Your task to perform on an android device: change notification settings in the gmail app Image 0: 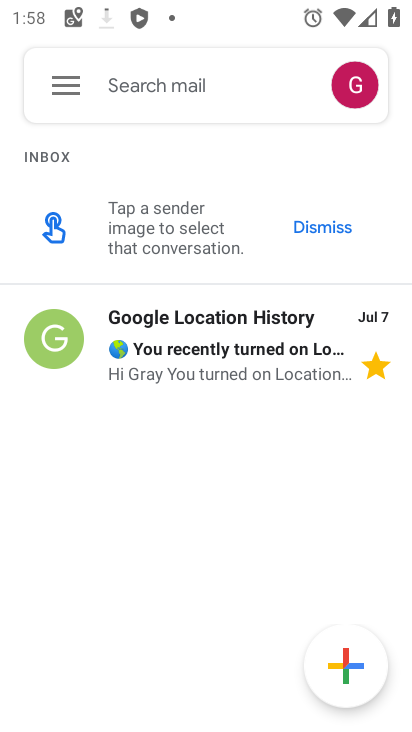
Step 0: press home button
Your task to perform on an android device: change notification settings in the gmail app Image 1: 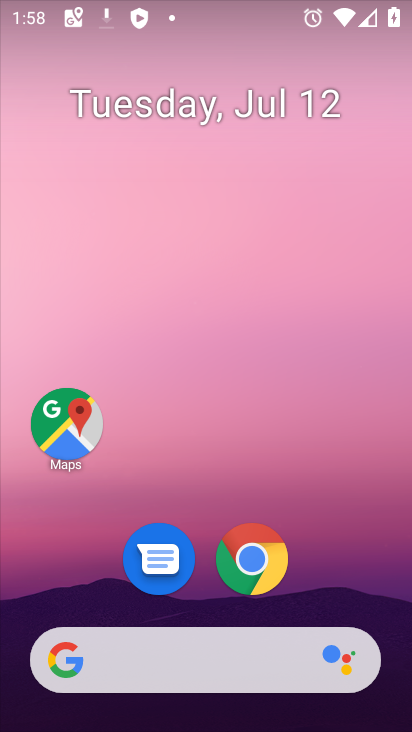
Step 1: drag from (349, 597) to (328, 177)
Your task to perform on an android device: change notification settings in the gmail app Image 2: 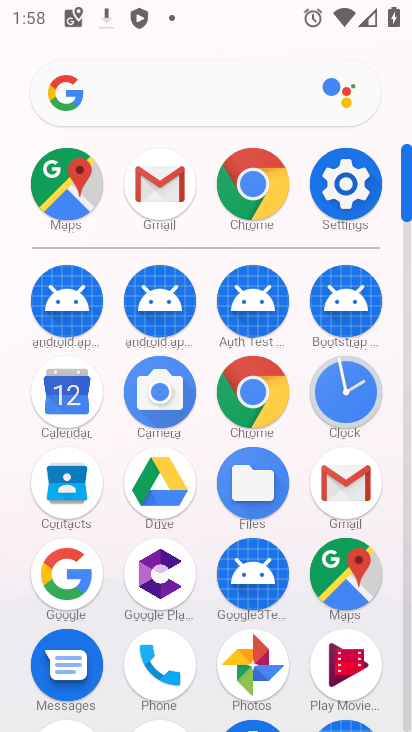
Step 2: click (345, 476)
Your task to perform on an android device: change notification settings in the gmail app Image 3: 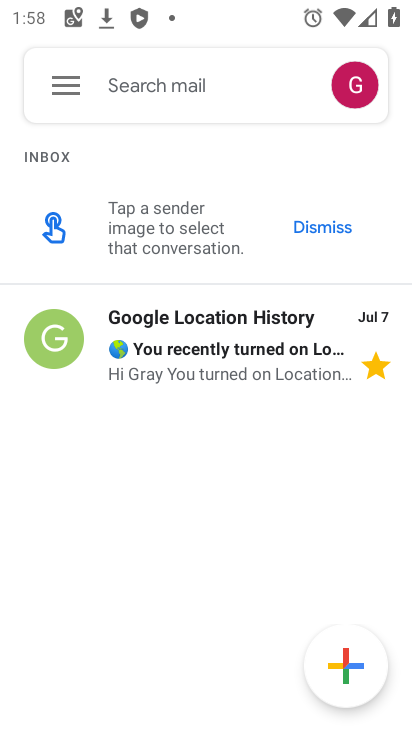
Step 3: click (69, 87)
Your task to perform on an android device: change notification settings in the gmail app Image 4: 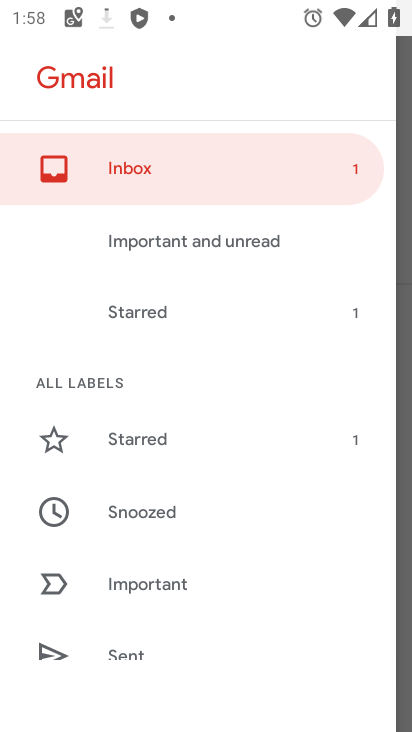
Step 4: drag from (255, 401) to (290, 344)
Your task to perform on an android device: change notification settings in the gmail app Image 5: 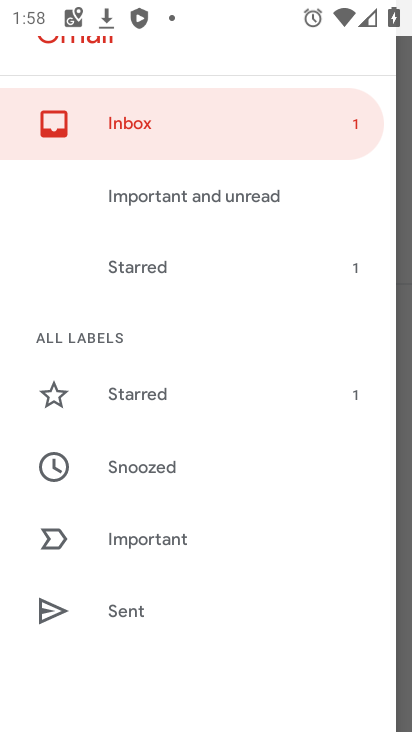
Step 5: drag from (268, 455) to (298, 334)
Your task to perform on an android device: change notification settings in the gmail app Image 6: 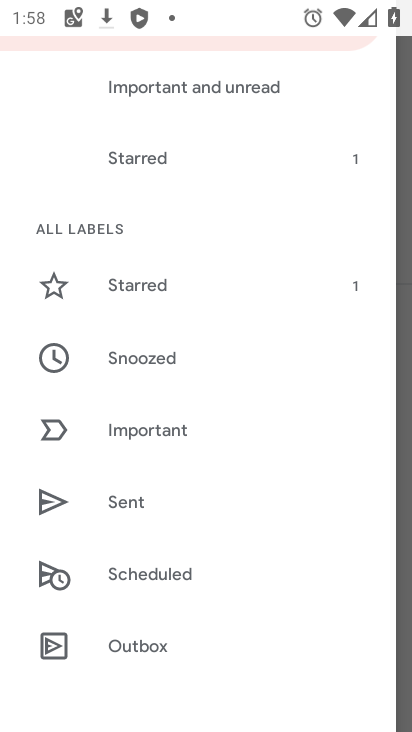
Step 6: drag from (284, 520) to (299, 455)
Your task to perform on an android device: change notification settings in the gmail app Image 7: 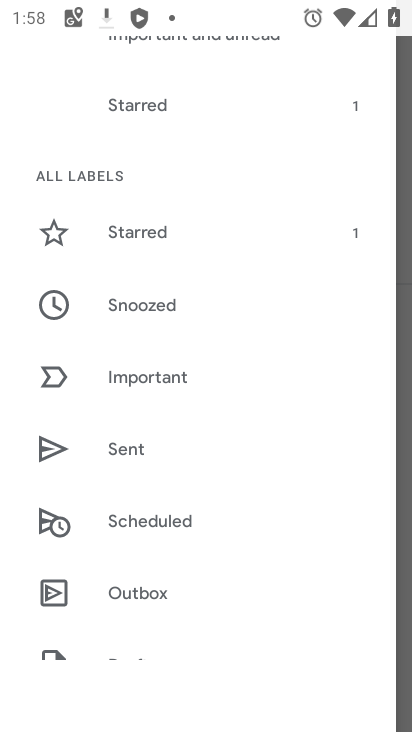
Step 7: drag from (285, 540) to (295, 444)
Your task to perform on an android device: change notification settings in the gmail app Image 8: 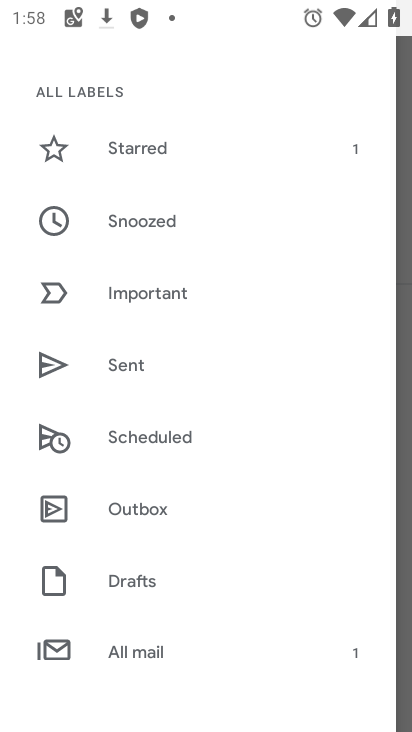
Step 8: drag from (284, 540) to (305, 451)
Your task to perform on an android device: change notification settings in the gmail app Image 9: 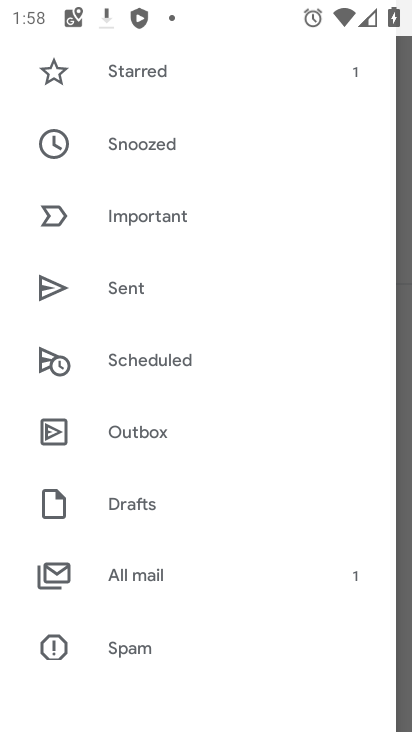
Step 9: drag from (285, 532) to (300, 417)
Your task to perform on an android device: change notification settings in the gmail app Image 10: 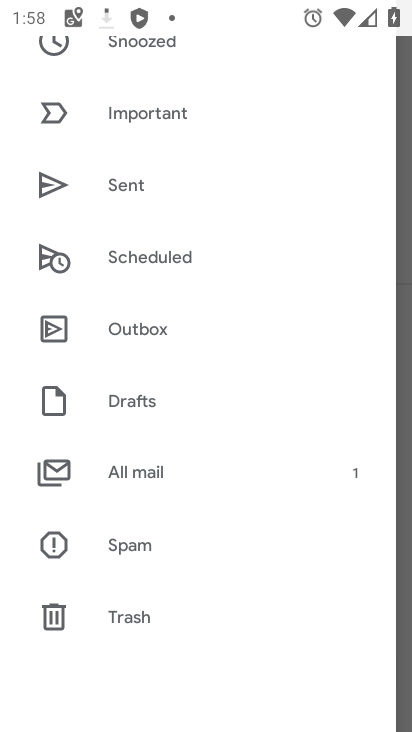
Step 10: drag from (287, 565) to (289, 451)
Your task to perform on an android device: change notification settings in the gmail app Image 11: 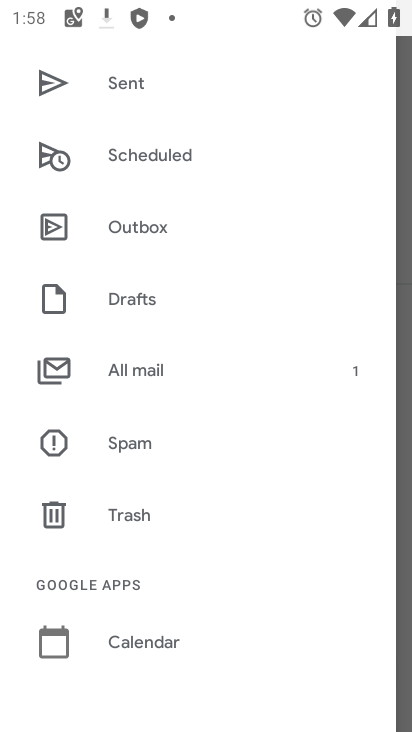
Step 11: drag from (276, 578) to (272, 394)
Your task to perform on an android device: change notification settings in the gmail app Image 12: 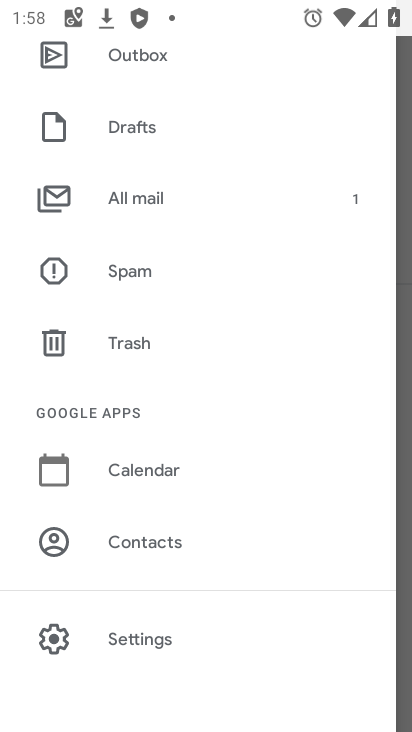
Step 12: drag from (262, 500) to (275, 376)
Your task to perform on an android device: change notification settings in the gmail app Image 13: 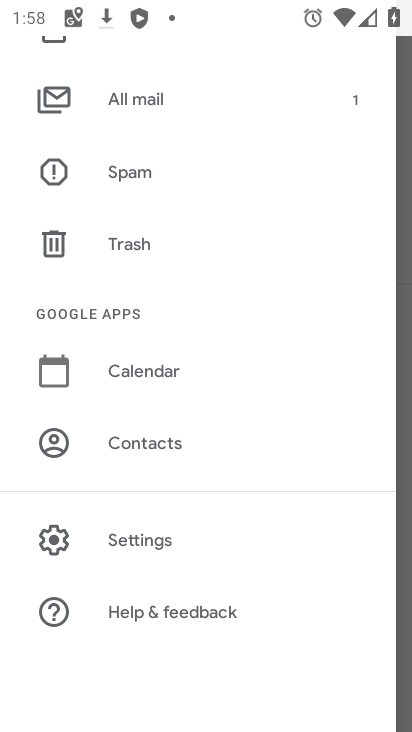
Step 13: click (217, 543)
Your task to perform on an android device: change notification settings in the gmail app Image 14: 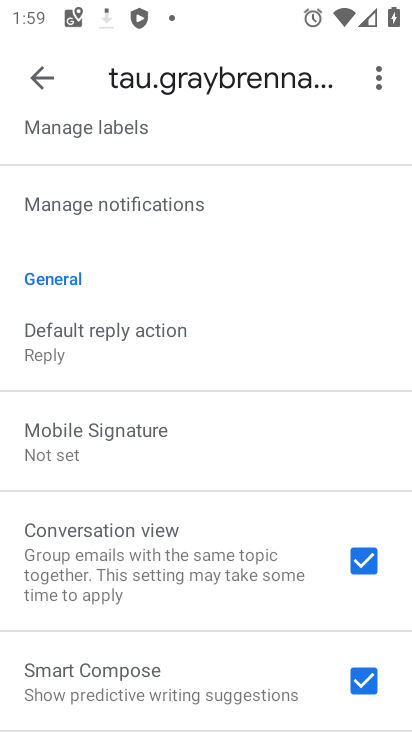
Step 14: drag from (292, 492) to (277, 360)
Your task to perform on an android device: change notification settings in the gmail app Image 15: 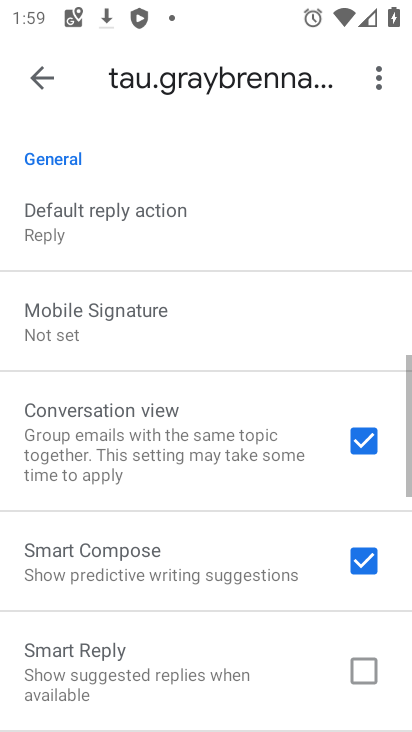
Step 15: drag from (284, 471) to (290, 413)
Your task to perform on an android device: change notification settings in the gmail app Image 16: 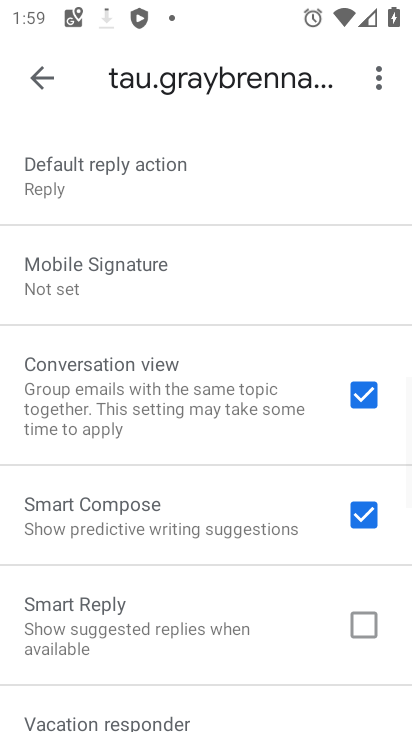
Step 16: drag from (281, 268) to (279, 420)
Your task to perform on an android device: change notification settings in the gmail app Image 17: 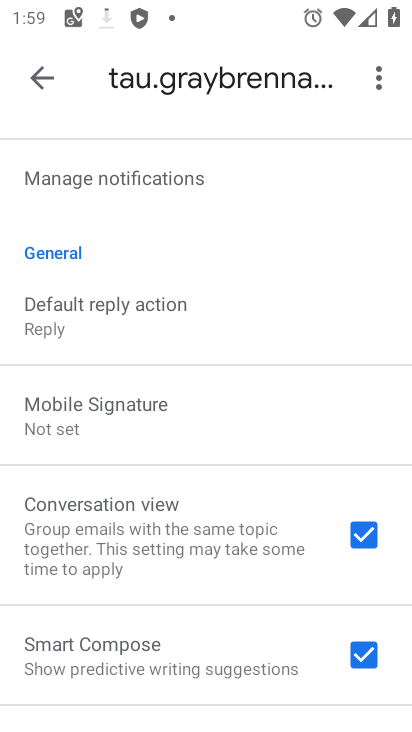
Step 17: drag from (265, 265) to (277, 366)
Your task to perform on an android device: change notification settings in the gmail app Image 18: 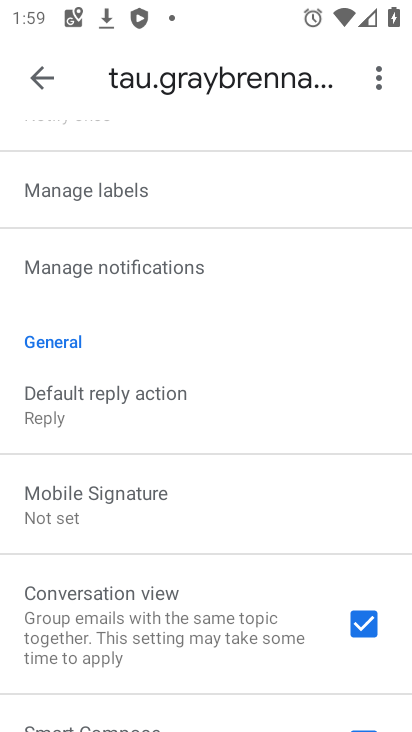
Step 18: drag from (273, 192) to (278, 372)
Your task to perform on an android device: change notification settings in the gmail app Image 19: 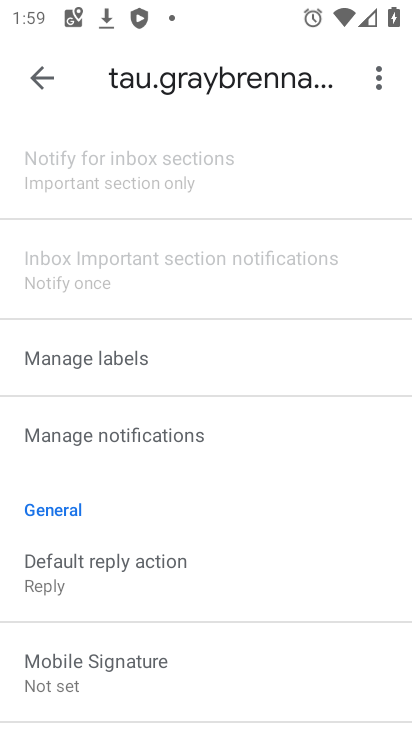
Step 19: drag from (283, 174) to (302, 372)
Your task to perform on an android device: change notification settings in the gmail app Image 20: 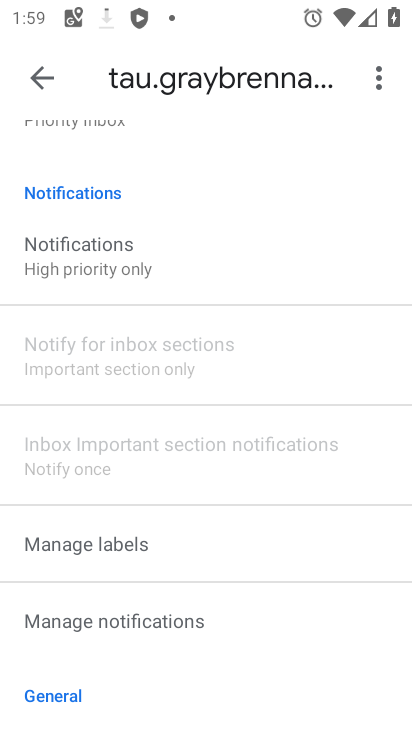
Step 20: drag from (279, 217) to (300, 392)
Your task to perform on an android device: change notification settings in the gmail app Image 21: 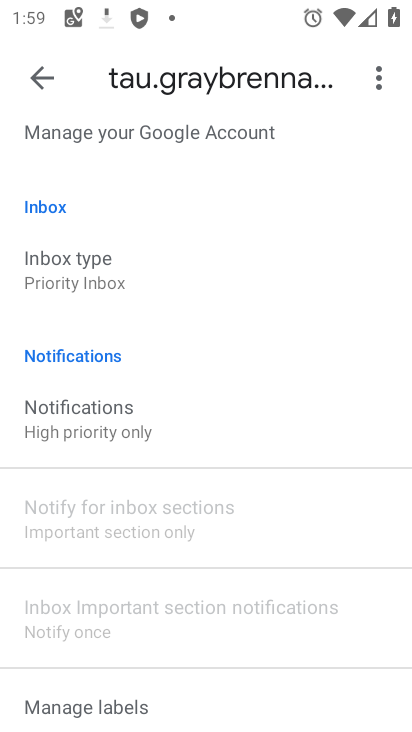
Step 21: drag from (271, 216) to (283, 414)
Your task to perform on an android device: change notification settings in the gmail app Image 22: 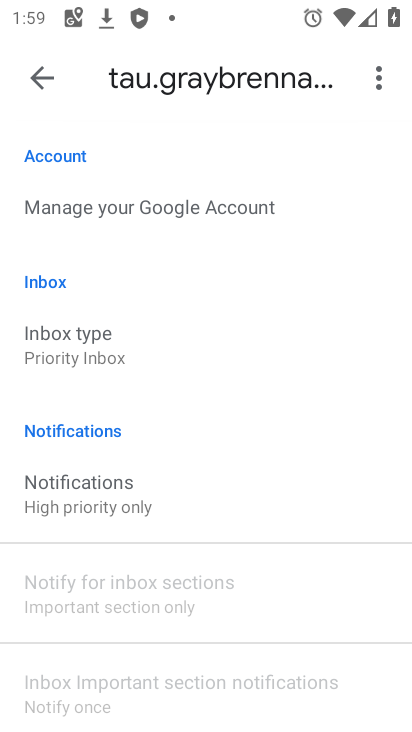
Step 22: drag from (272, 449) to (269, 356)
Your task to perform on an android device: change notification settings in the gmail app Image 23: 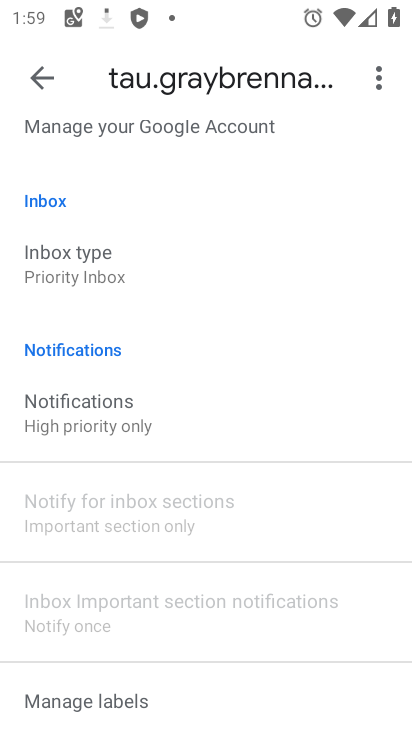
Step 23: click (174, 393)
Your task to perform on an android device: change notification settings in the gmail app Image 24: 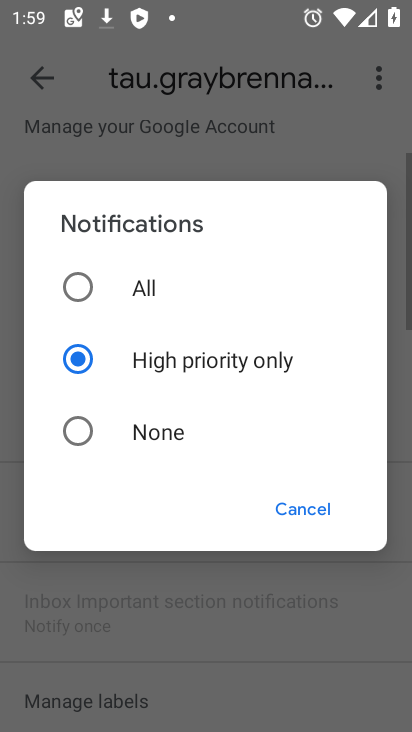
Step 24: click (164, 295)
Your task to perform on an android device: change notification settings in the gmail app Image 25: 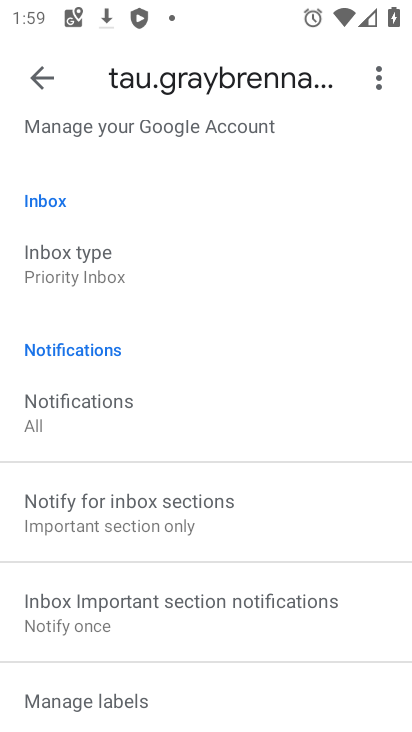
Step 25: task complete